Your task to perform on an android device: Open Yahoo.com Image 0: 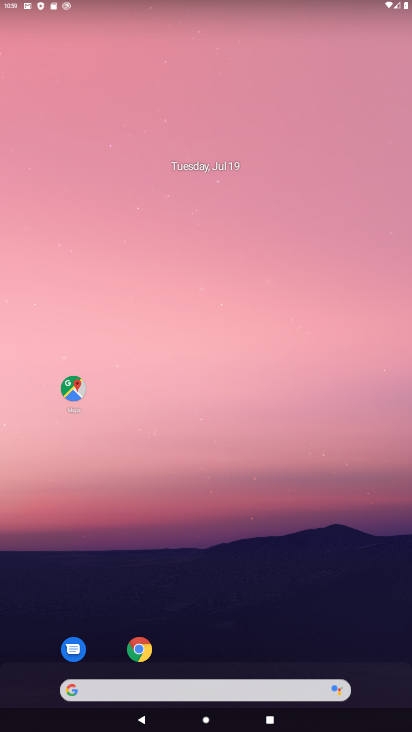
Step 0: drag from (182, 613) to (219, 210)
Your task to perform on an android device: Open Yahoo.com Image 1: 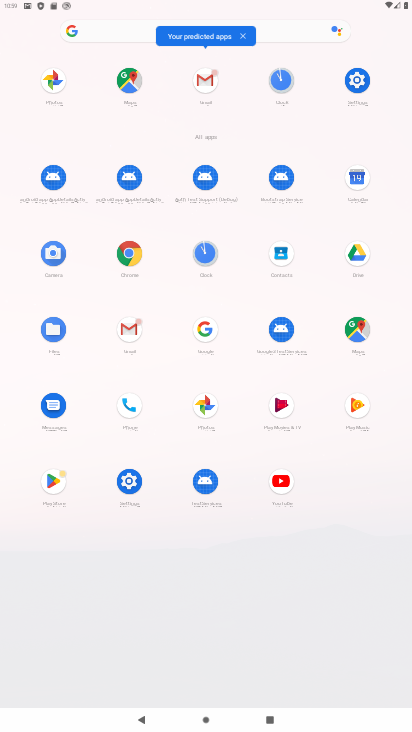
Step 1: click (130, 252)
Your task to perform on an android device: Open Yahoo.com Image 2: 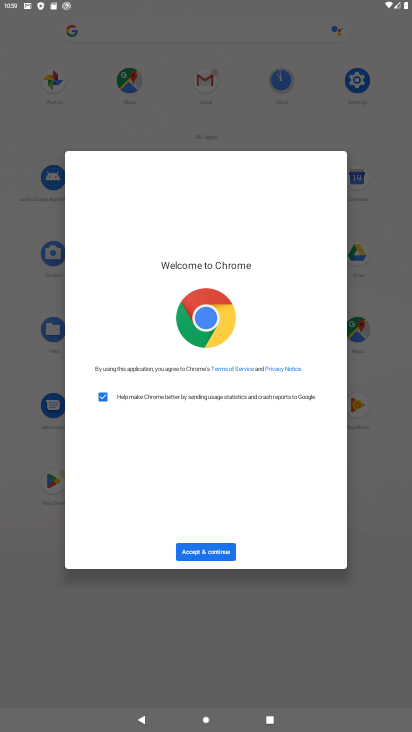
Step 2: click (181, 553)
Your task to perform on an android device: Open Yahoo.com Image 3: 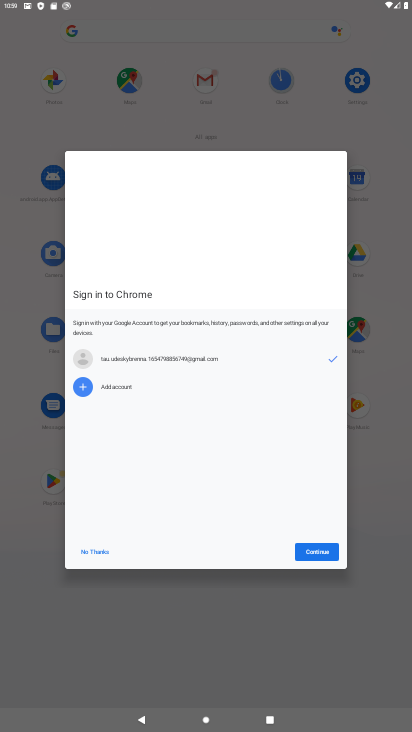
Step 3: click (323, 554)
Your task to perform on an android device: Open Yahoo.com Image 4: 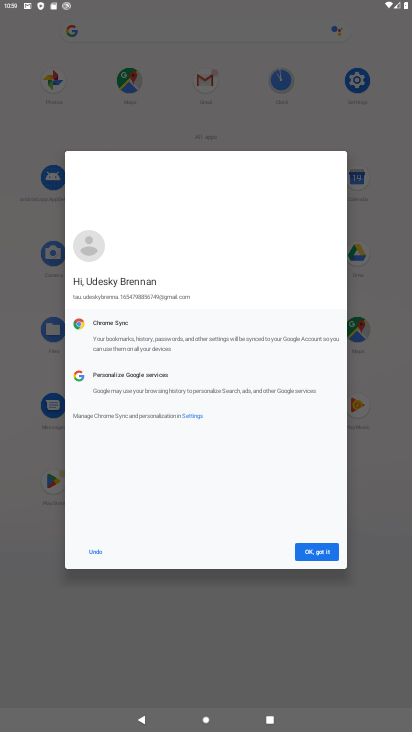
Step 4: click (323, 554)
Your task to perform on an android device: Open Yahoo.com Image 5: 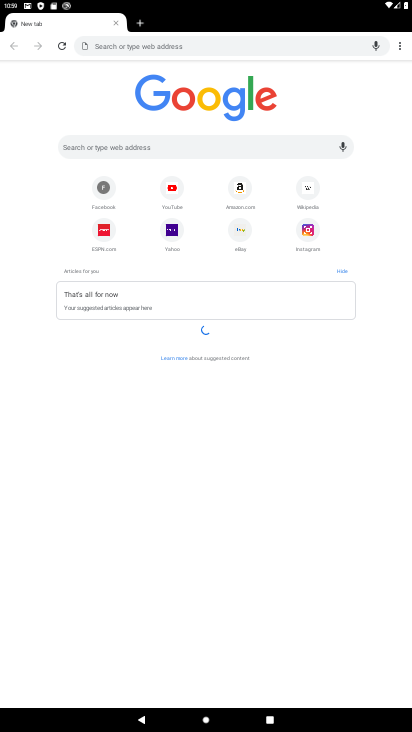
Step 5: click (177, 232)
Your task to perform on an android device: Open Yahoo.com Image 6: 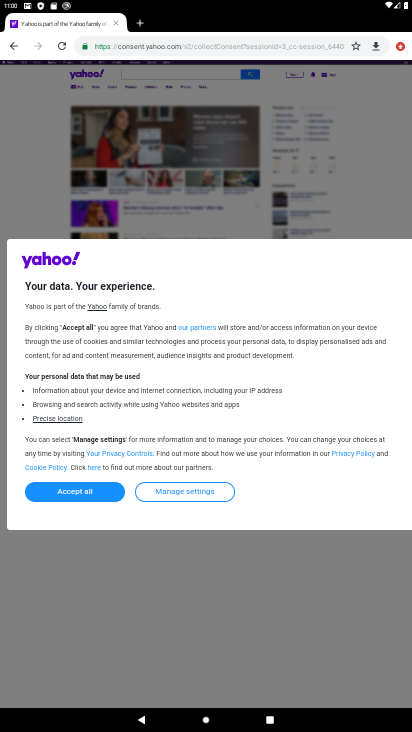
Step 6: click (72, 495)
Your task to perform on an android device: Open Yahoo.com Image 7: 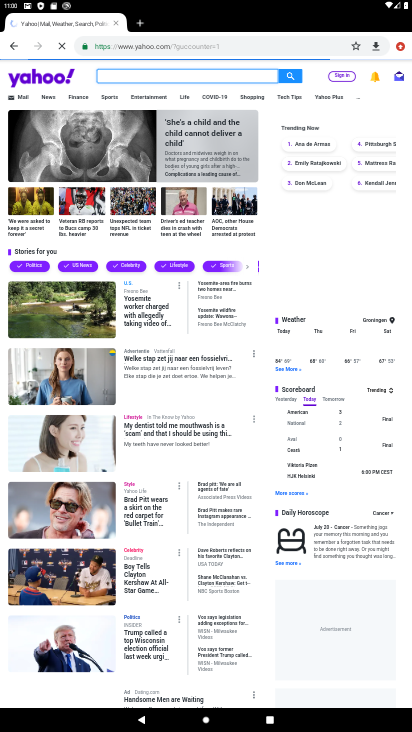
Step 7: task complete